Your task to perform on an android device: What's the weather? Image 0: 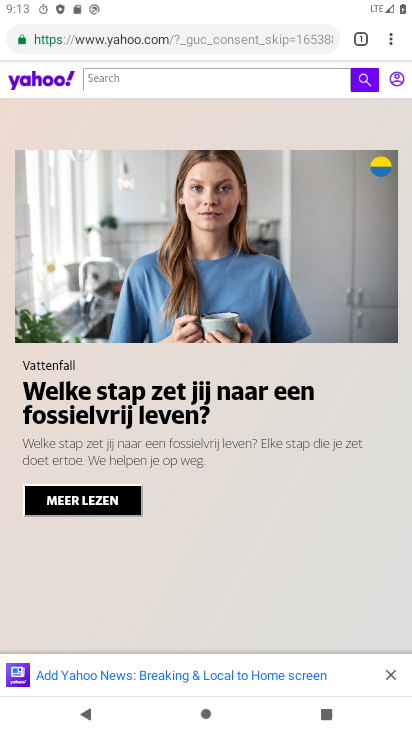
Step 0: press home button
Your task to perform on an android device: What's the weather? Image 1: 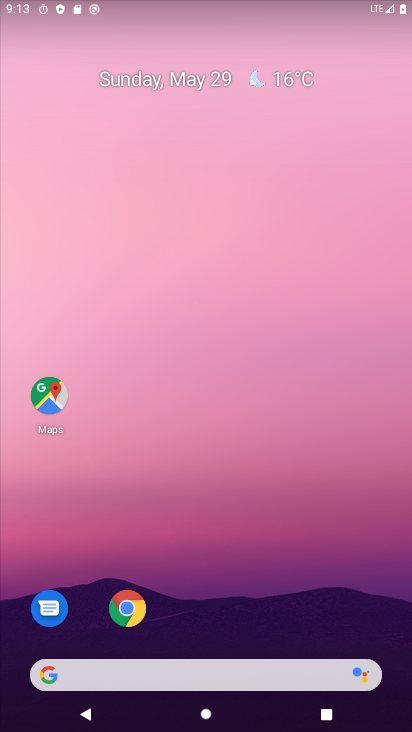
Step 1: drag from (219, 584) to (187, 123)
Your task to perform on an android device: What's the weather? Image 2: 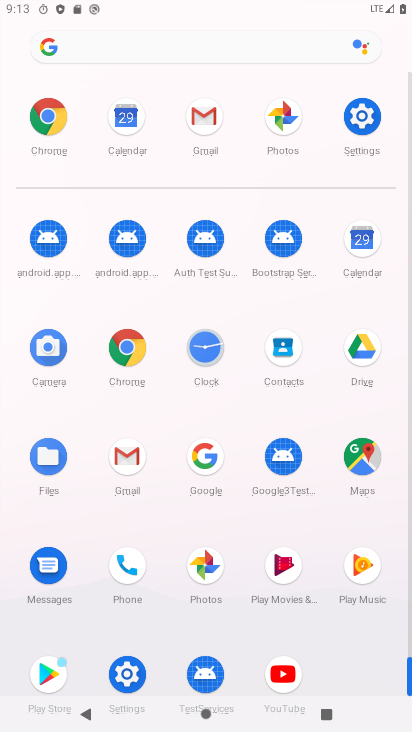
Step 2: click (196, 470)
Your task to perform on an android device: What's the weather? Image 3: 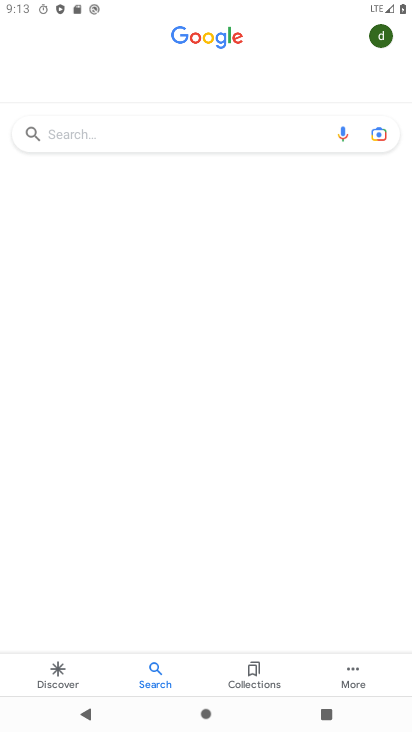
Step 3: click (183, 126)
Your task to perform on an android device: What's the weather? Image 4: 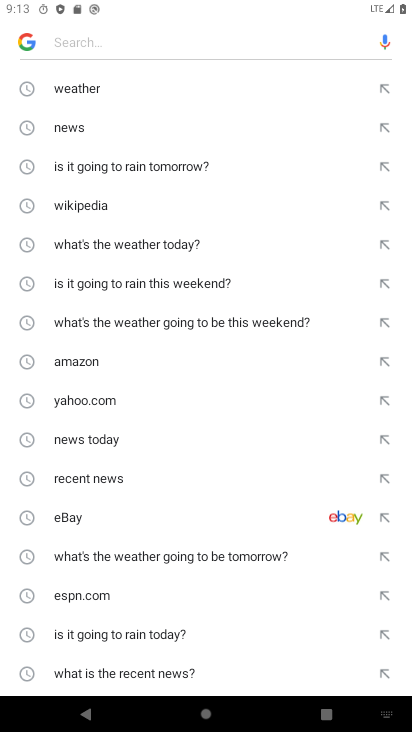
Step 4: click (81, 90)
Your task to perform on an android device: What's the weather? Image 5: 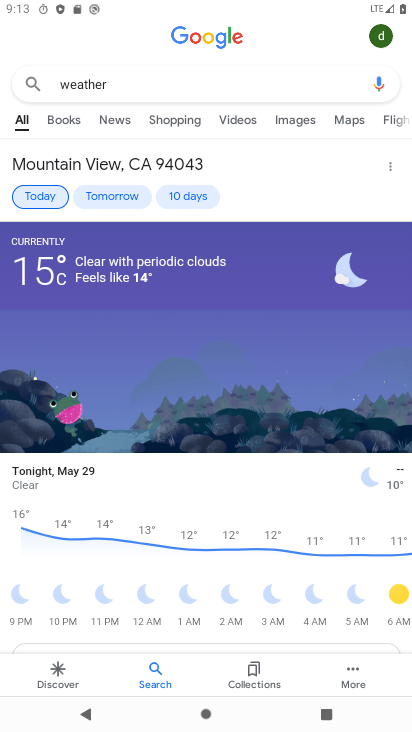
Step 5: task complete